Your task to perform on an android device: refresh tabs in the chrome app Image 0: 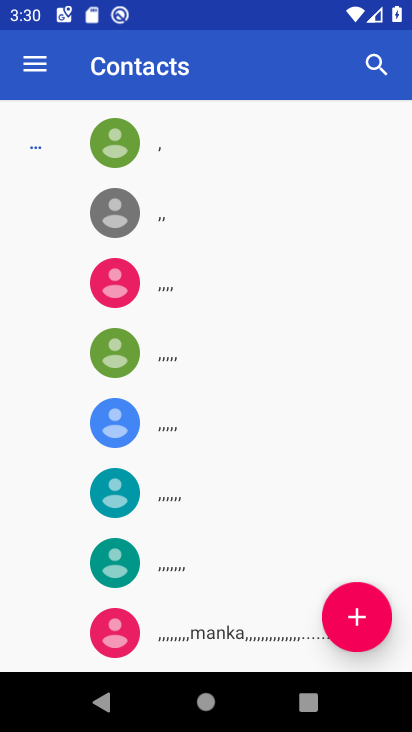
Step 0: press home button
Your task to perform on an android device: refresh tabs in the chrome app Image 1: 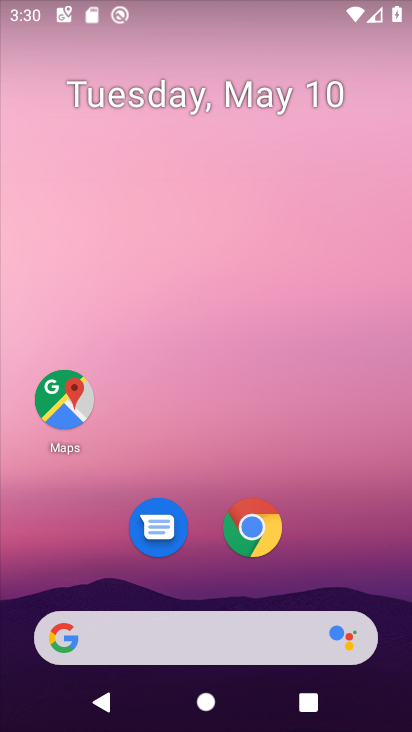
Step 1: drag from (392, 640) to (398, 381)
Your task to perform on an android device: refresh tabs in the chrome app Image 2: 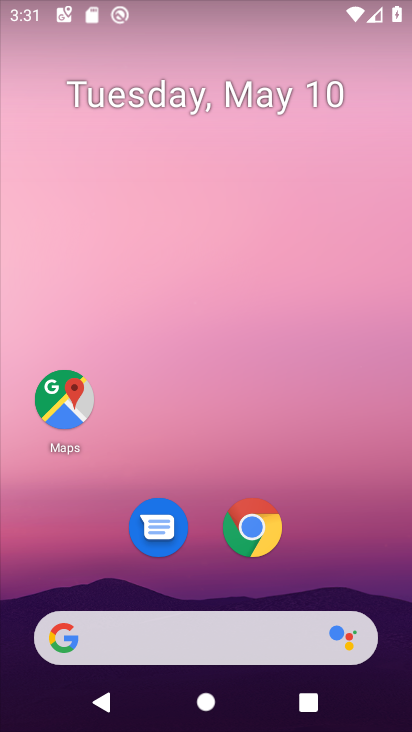
Step 2: click (257, 533)
Your task to perform on an android device: refresh tabs in the chrome app Image 3: 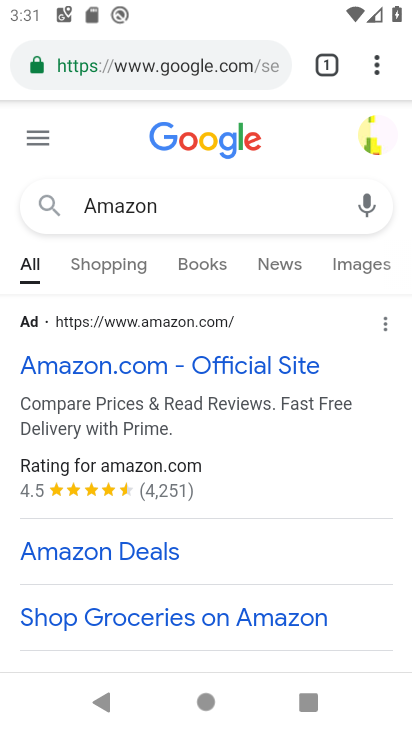
Step 3: click (376, 62)
Your task to perform on an android device: refresh tabs in the chrome app Image 4: 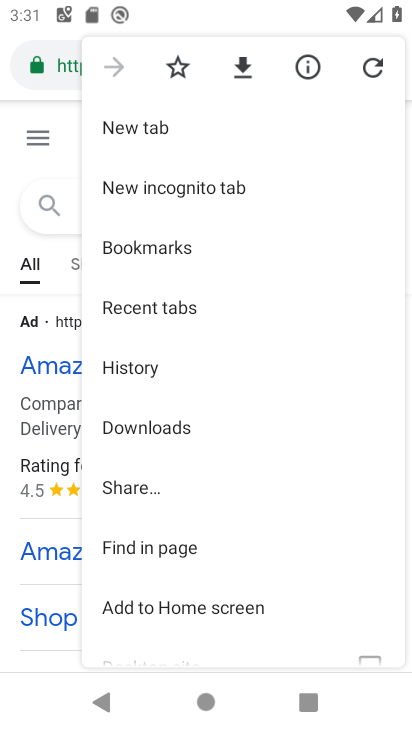
Step 4: click (364, 63)
Your task to perform on an android device: refresh tabs in the chrome app Image 5: 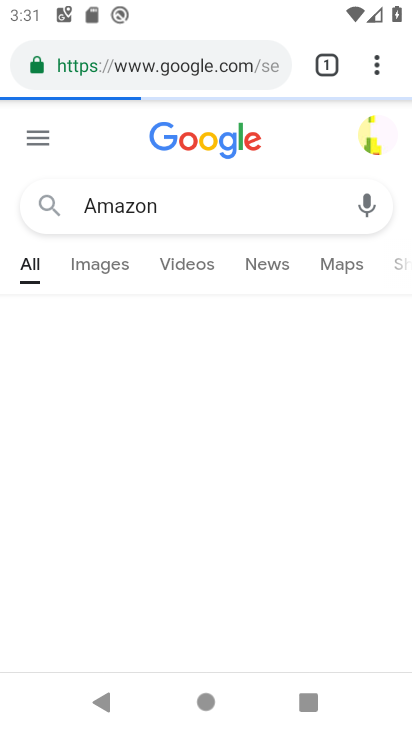
Step 5: task complete